Your task to perform on an android device: Open Android settings Image 0: 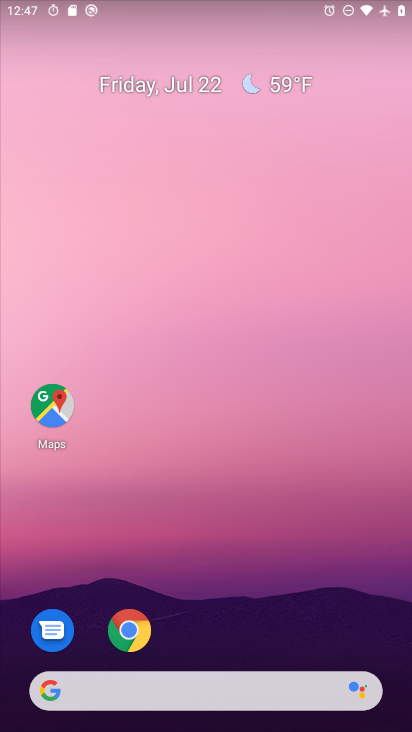
Step 0: press home button
Your task to perform on an android device: Open Android settings Image 1: 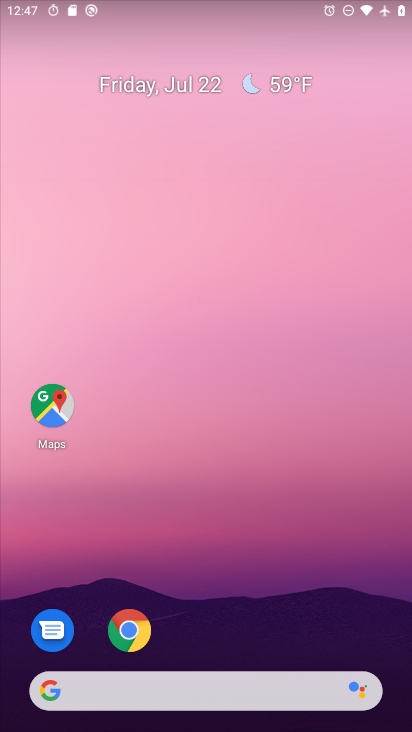
Step 1: drag from (225, 651) to (64, 55)
Your task to perform on an android device: Open Android settings Image 2: 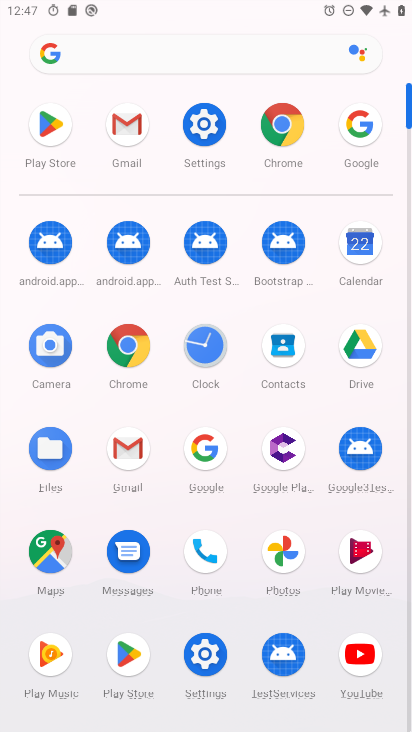
Step 2: click (198, 123)
Your task to perform on an android device: Open Android settings Image 3: 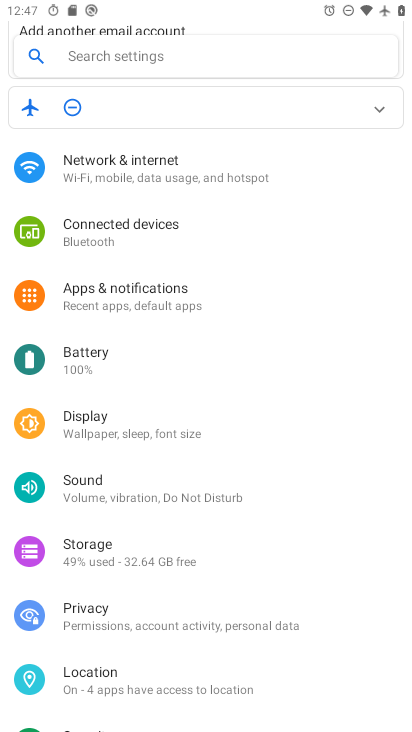
Step 3: task complete